Your task to perform on an android device: turn on data saver in the chrome app Image 0: 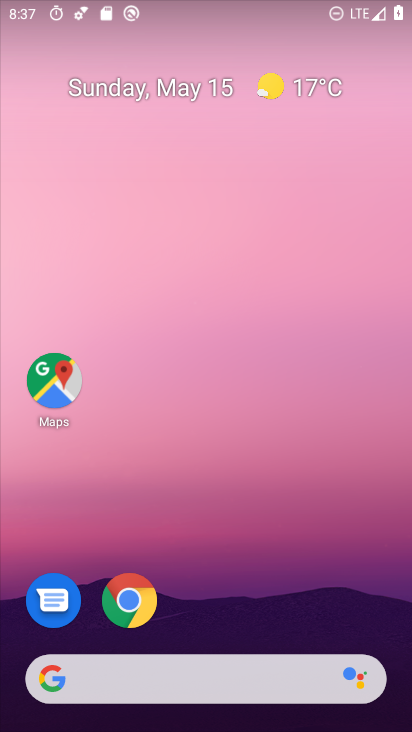
Step 0: click (126, 601)
Your task to perform on an android device: turn on data saver in the chrome app Image 1: 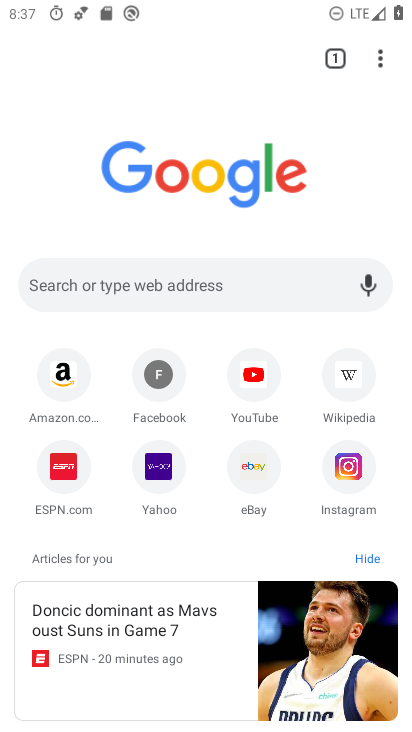
Step 1: click (378, 54)
Your task to perform on an android device: turn on data saver in the chrome app Image 2: 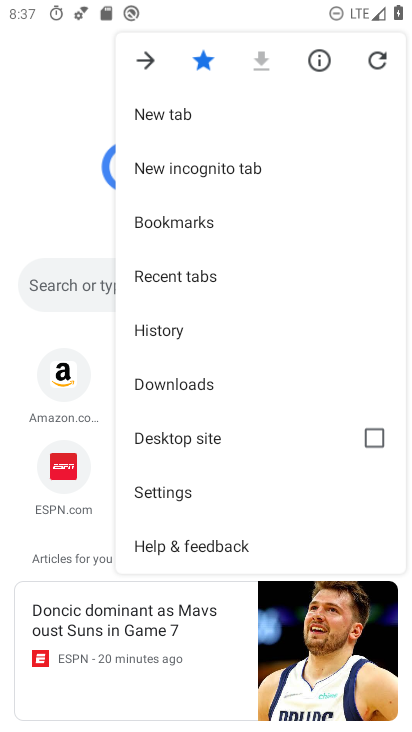
Step 2: click (173, 492)
Your task to perform on an android device: turn on data saver in the chrome app Image 3: 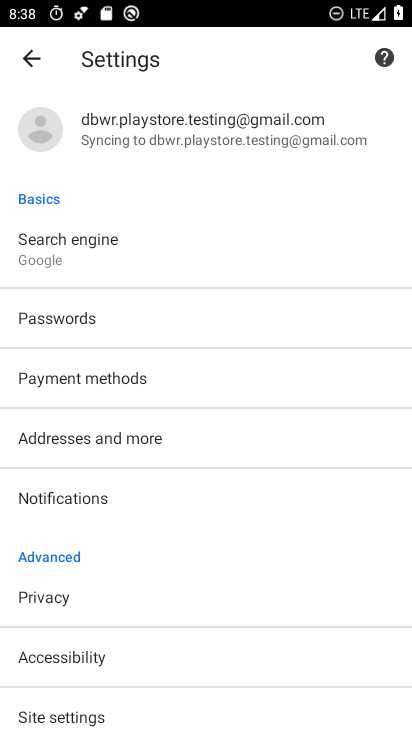
Step 3: drag from (129, 644) to (159, 528)
Your task to perform on an android device: turn on data saver in the chrome app Image 4: 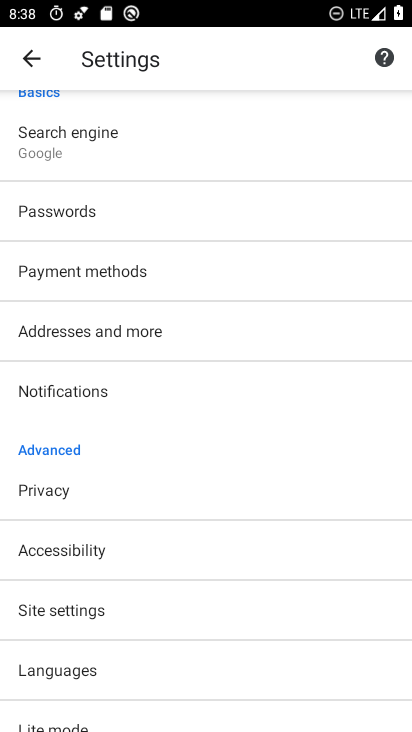
Step 4: drag from (137, 689) to (184, 617)
Your task to perform on an android device: turn on data saver in the chrome app Image 5: 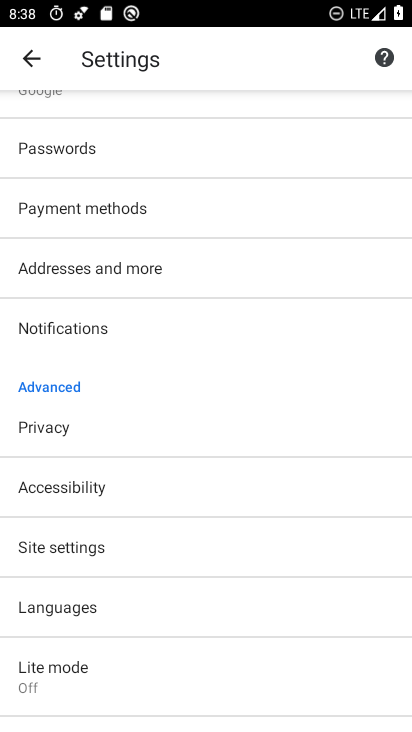
Step 5: click (64, 663)
Your task to perform on an android device: turn on data saver in the chrome app Image 6: 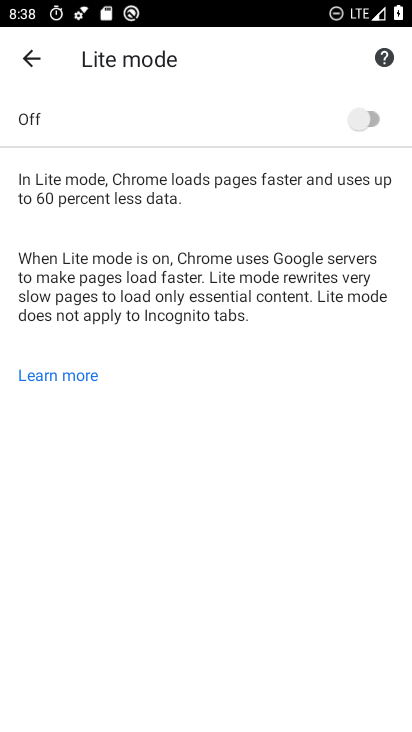
Step 6: click (363, 114)
Your task to perform on an android device: turn on data saver in the chrome app Image 7: 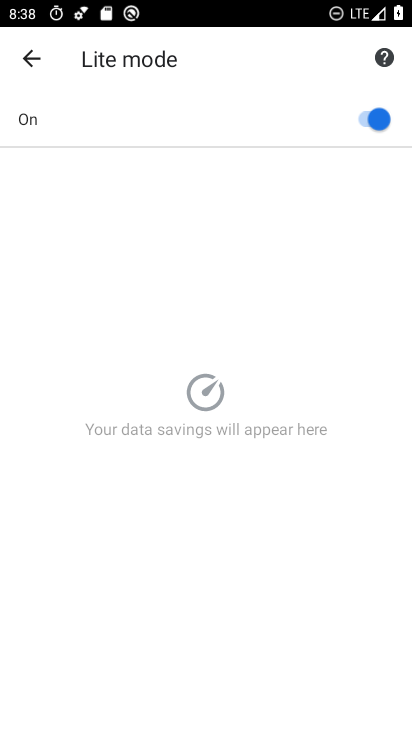
Step 7: task complete